Your task to perform on an android device: Go to network settings Image 0: 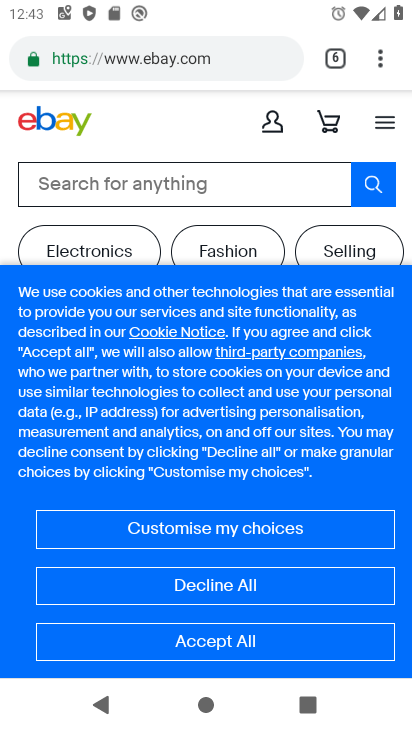
Step 0: press home button
Your task to perform on an android device: Go to network settings Image 1: 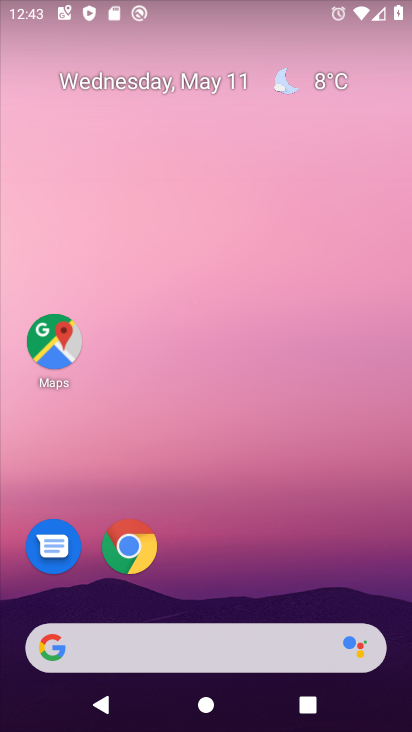
Step 1: drag from (175, 659) to (320, 99)
Your task to perform on an android device: Go to network settings Image 2: 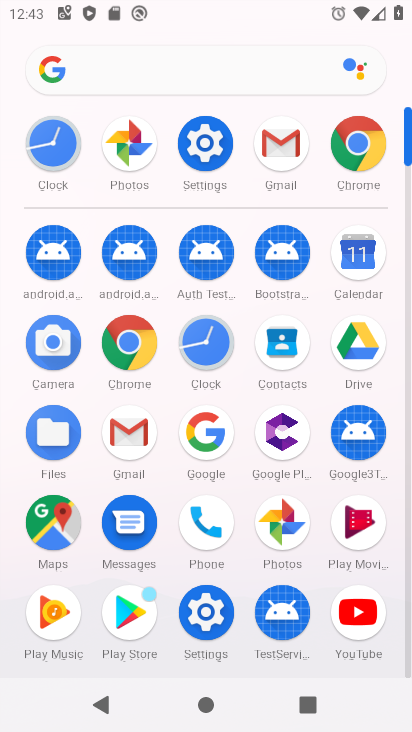
Step 2: click (206, 138)
Your task to perform on an android device: Go to network settings Image 3: 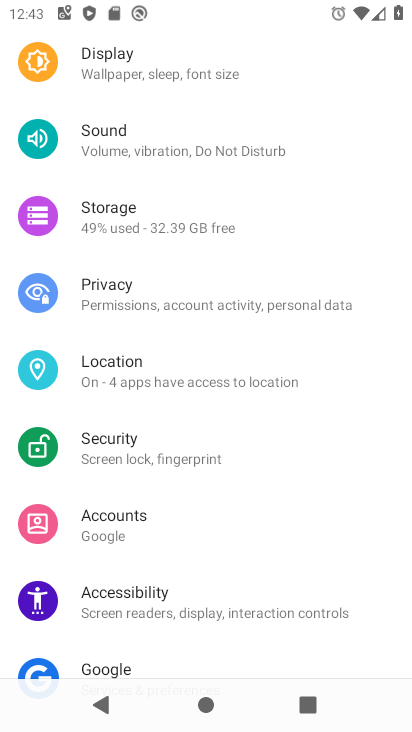
Step 3: drag from (267, 72) to (233, 482)
Your task to perform on an android device: Go to network settings Image 4: 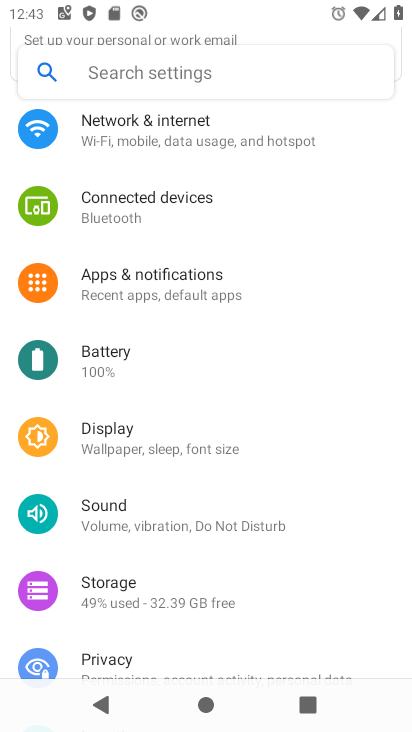
Step 4: click (209, 131)
Your task to perform on an android device: Go to network settings Image 5: 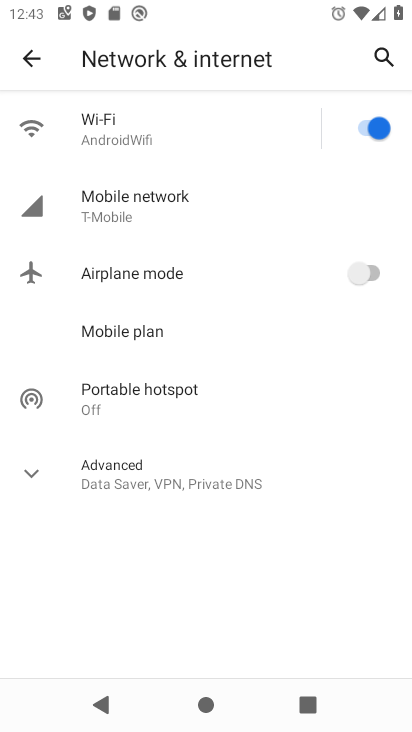
Step 5: click (178, 185)
Your task to perform on an android device: Go to network settings Image 6: 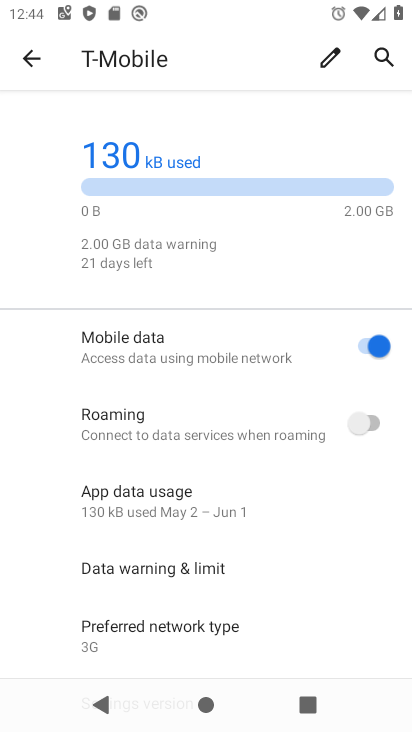
Step 6: task complete